Your task to perform on an android device: turn notification dots on Image 0: 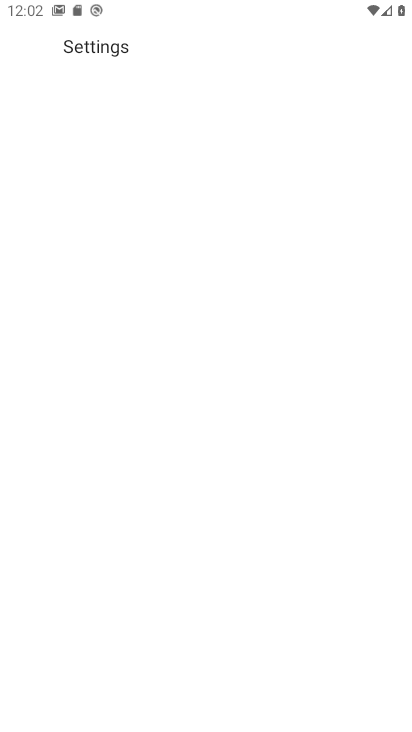
Step 0: press home button
Your task to perform on an android device: turn notification dots on Image 1: 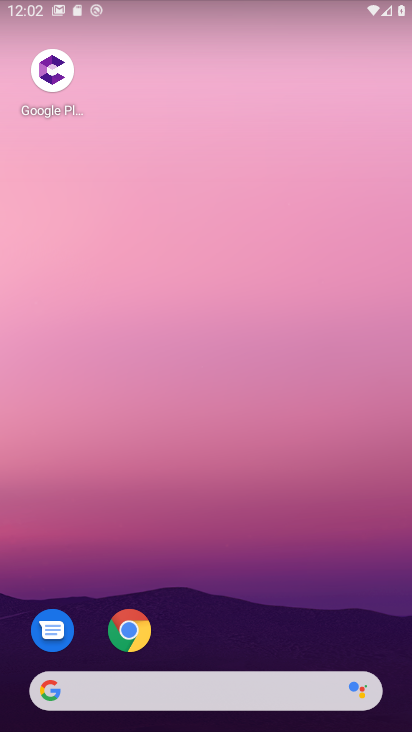
Step 1: drag from (175, 664) to (159, 25)
Your task to perform on an android device: turn notification dots on Image 2: 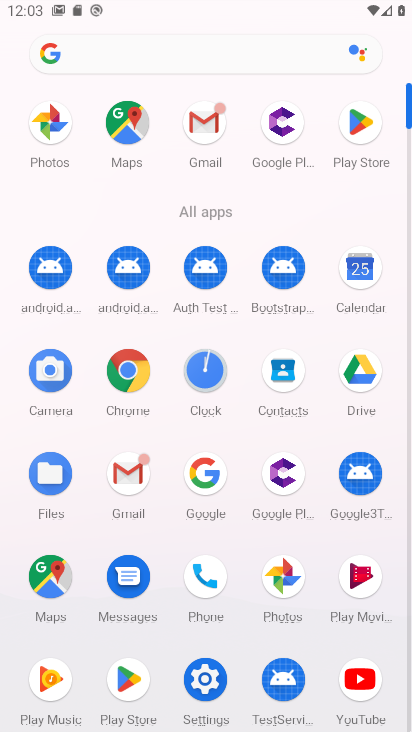
Step 2: click (216, 678)
Your task to perform on an android device: turn notification dots on Image 3: 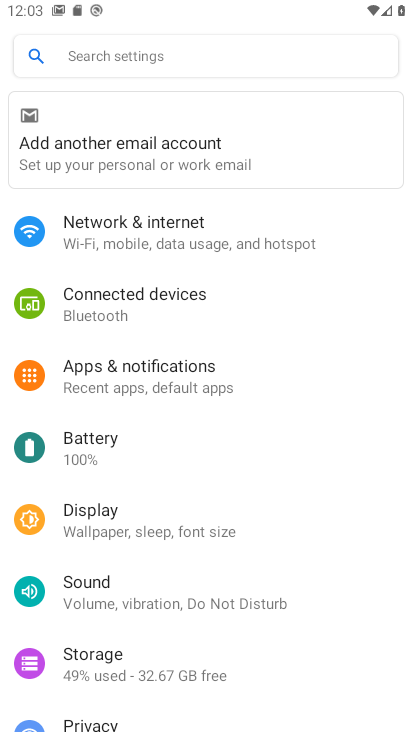
Step 3: click (149, 391)
Your task to perform on an android device: turn notification dots on Image 4: 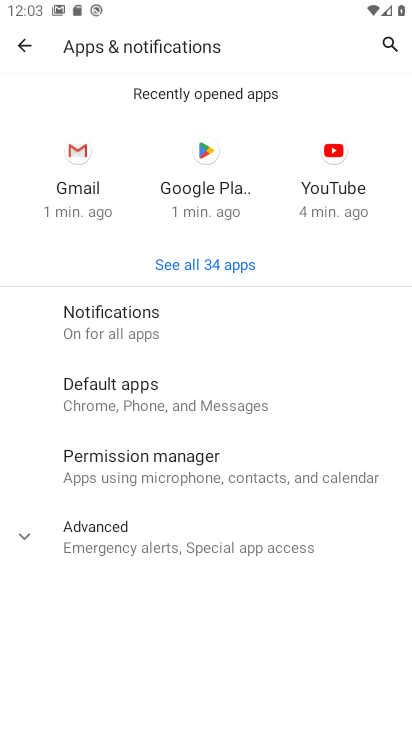
Step 4: click (98, 337)
Your task to perform on an android device: turn notification dots on Image 5: 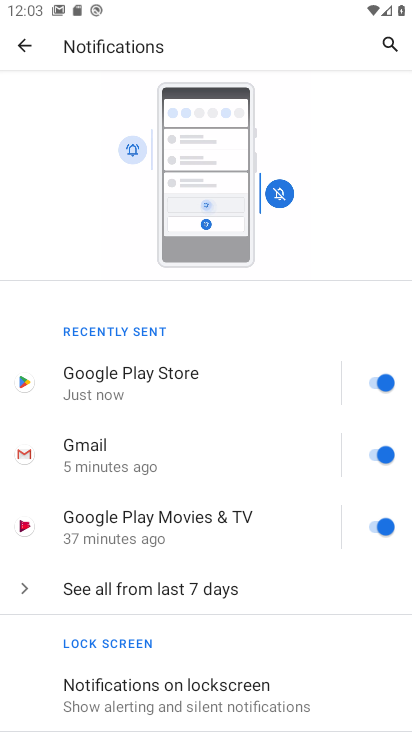
Step 5: drag from (231, 638) to (222, 177)
Your task to perform on an android device: turn notification dots on Image 6: 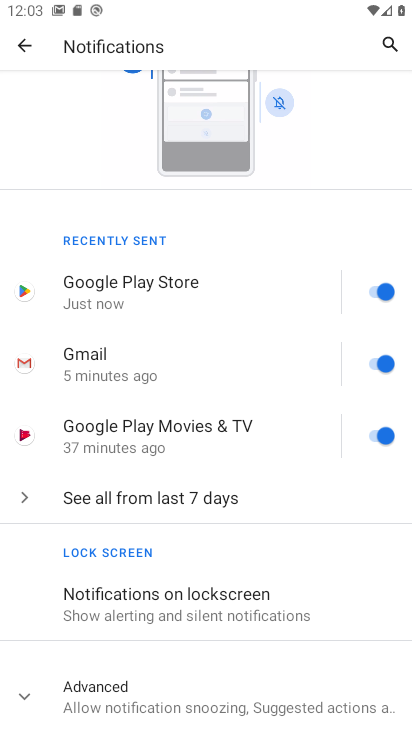
Step 6: click (181, 692)
Your task to perform on an android device: turn notification dots on Image 7: 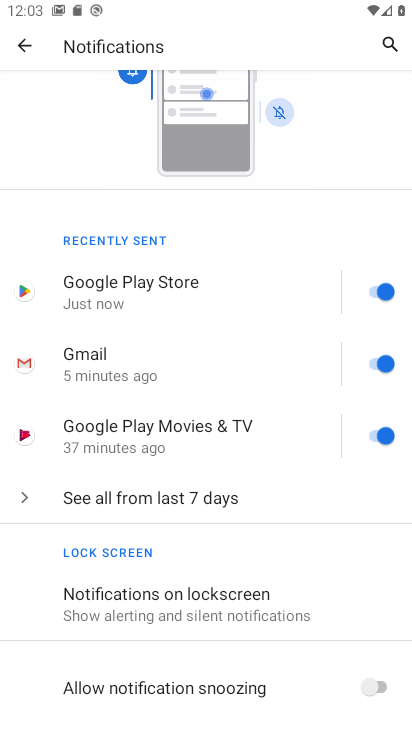
Step 7: task complete